Your task to perform on an android device: What's a good restaurant in Miami? Image 0: 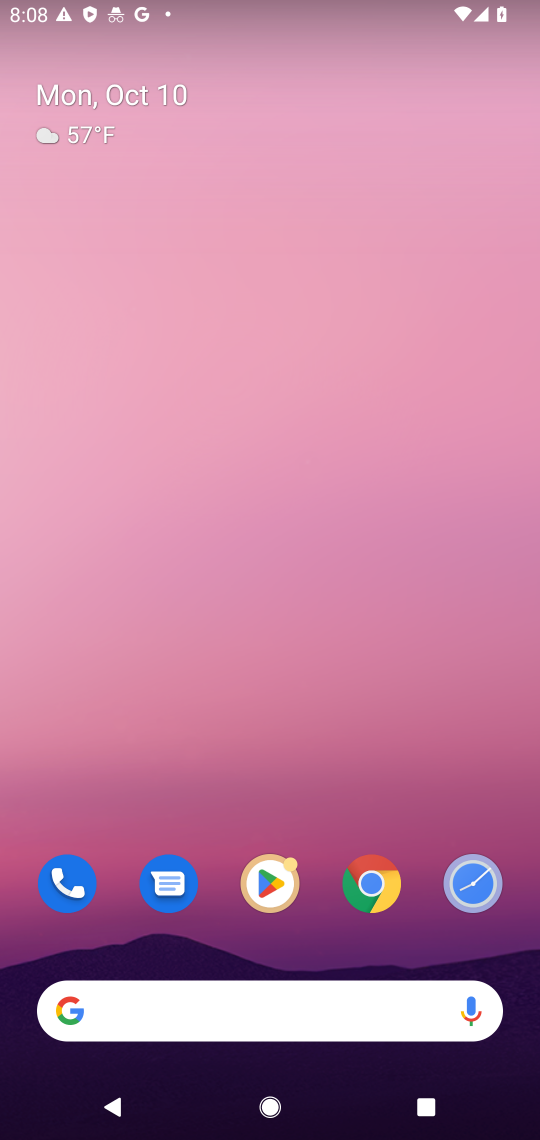
Step 0: drag from (359, 931) to (375, 0)
Your task to perform on an android device: What's a good restaurant in Miami? Image 1: 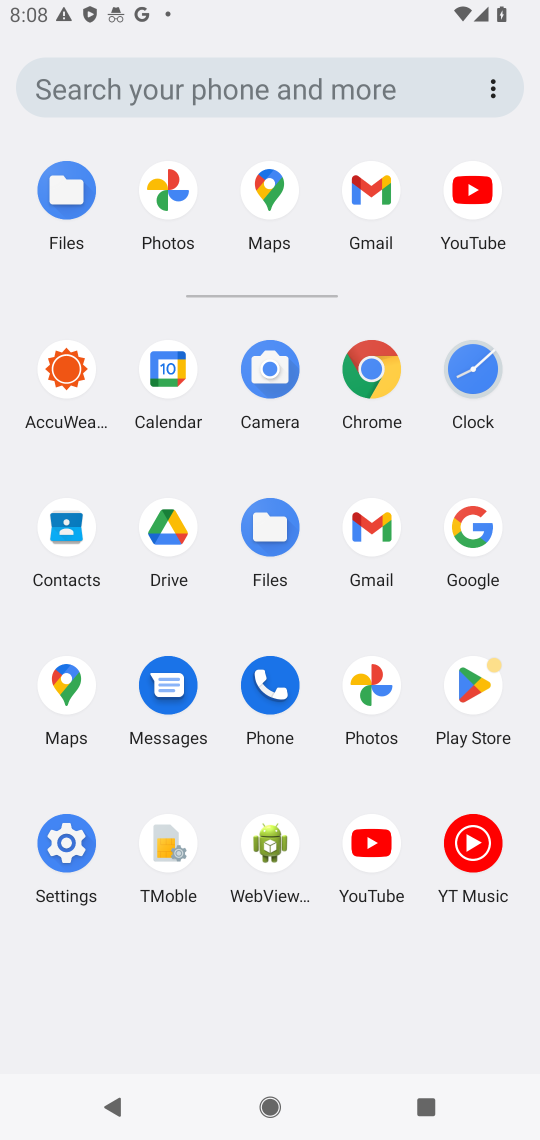
Step 1: click (478, 566)
Your task to perform on an android device: What's a good restaurant in Miami? Image 2: 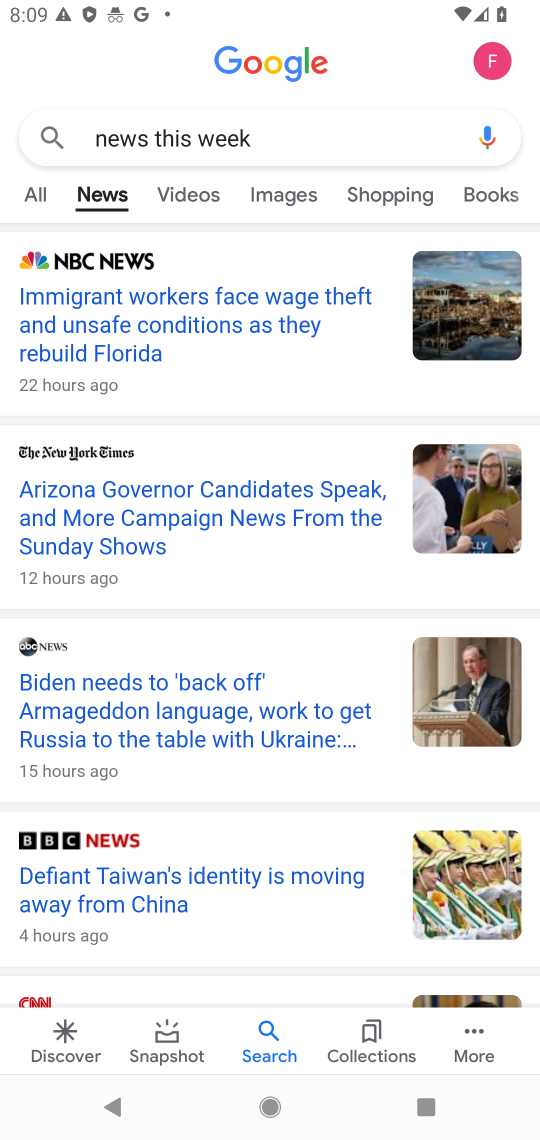
Step 2: click (389, 148)
Your task to perform on an android device: What's a good restaurant in Miami? Image 3: 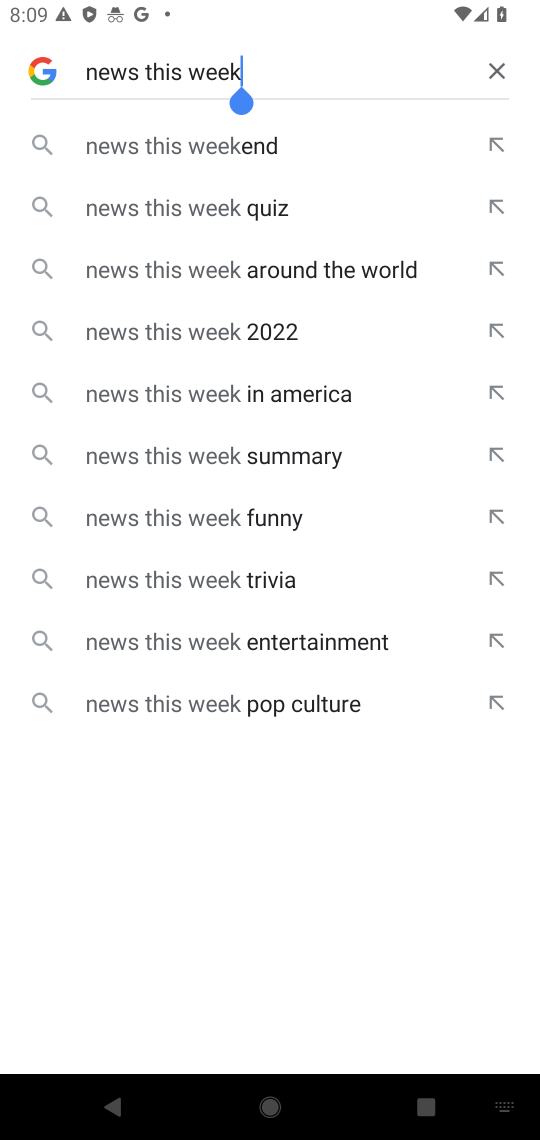
Step 3: click (499, 76)
Your task to perform on an android device: What's a good restaurant in Miami? Image 4: 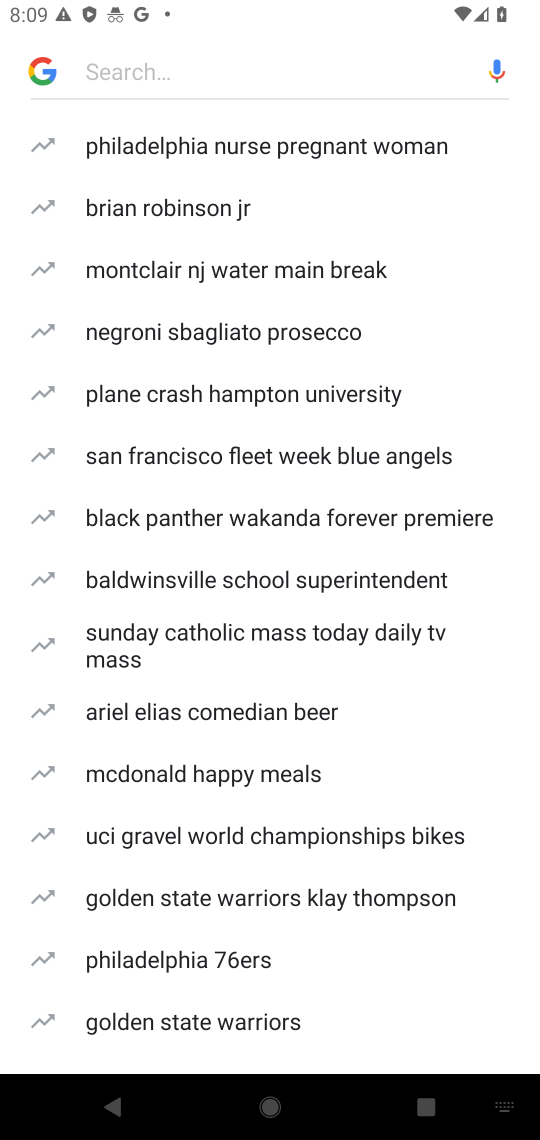
Step 4: type "good restaurant in Miami"
Your task to perform on an android device: What's a good restaurant in Miami? Image 5: 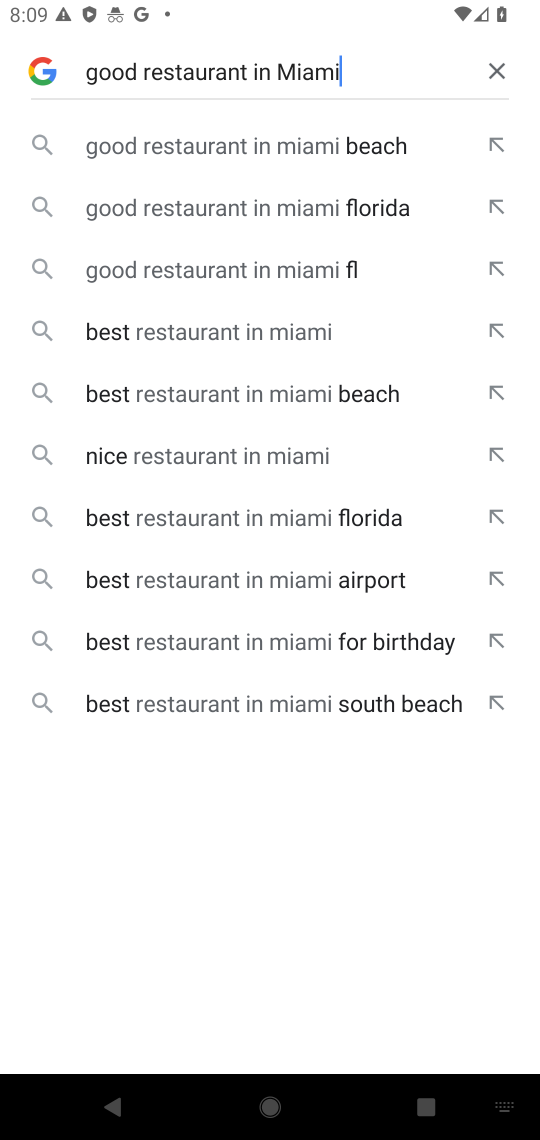
Step 5: click (339, 200)
Your task to perform on an android device: What's a good restaurant in Miami? Image 6: 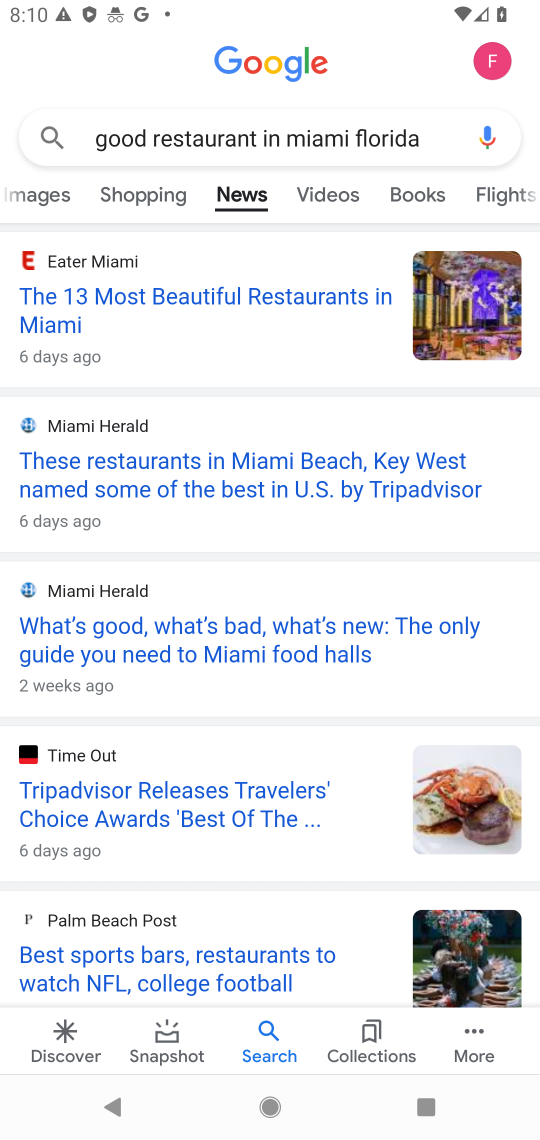
Step 6: drag from (153, 196) to (419, 189)
Your task to perform on an android device: What's a good restaurant in Miami? Image 7: 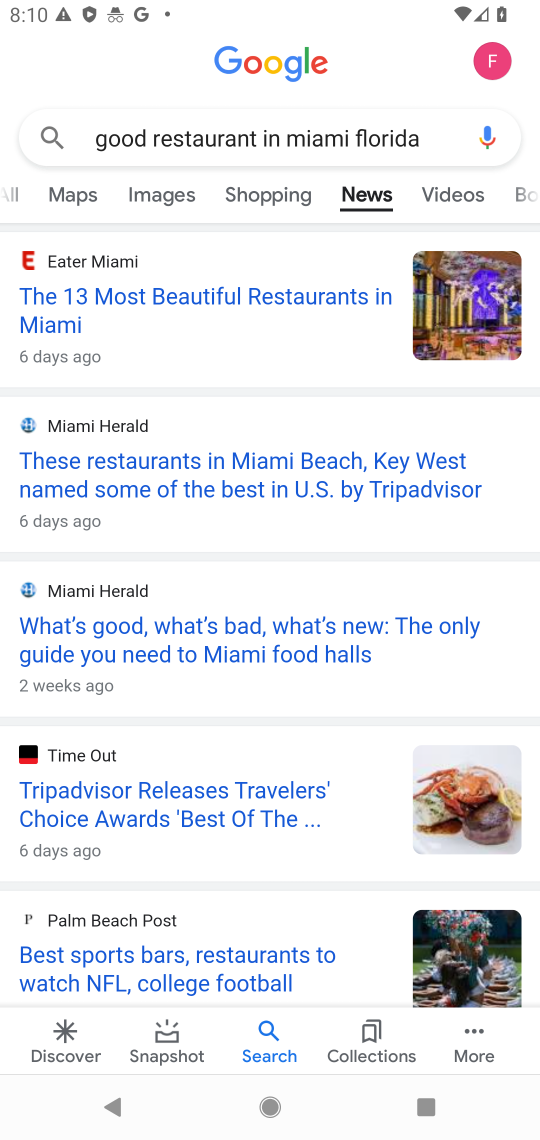
Step 7: drag from (128, 193) to (510, 225)
Your task to perform on an android device: What's a good restaurant in Miami? Image 8: 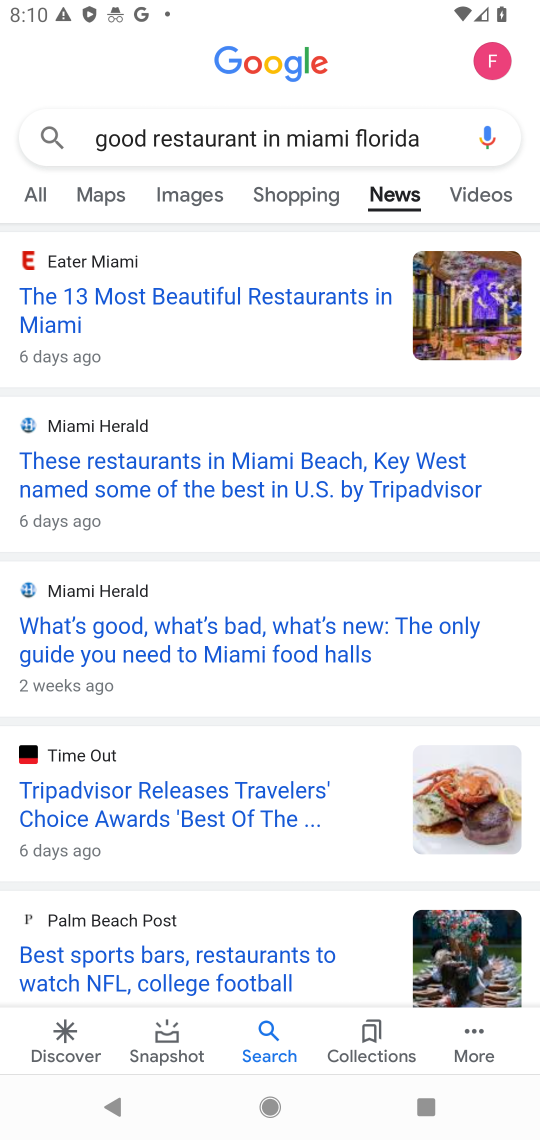
Step 8: click (50, 193)
Your task to perform on an android device: What's a good restaurant in Miami? Image 9: 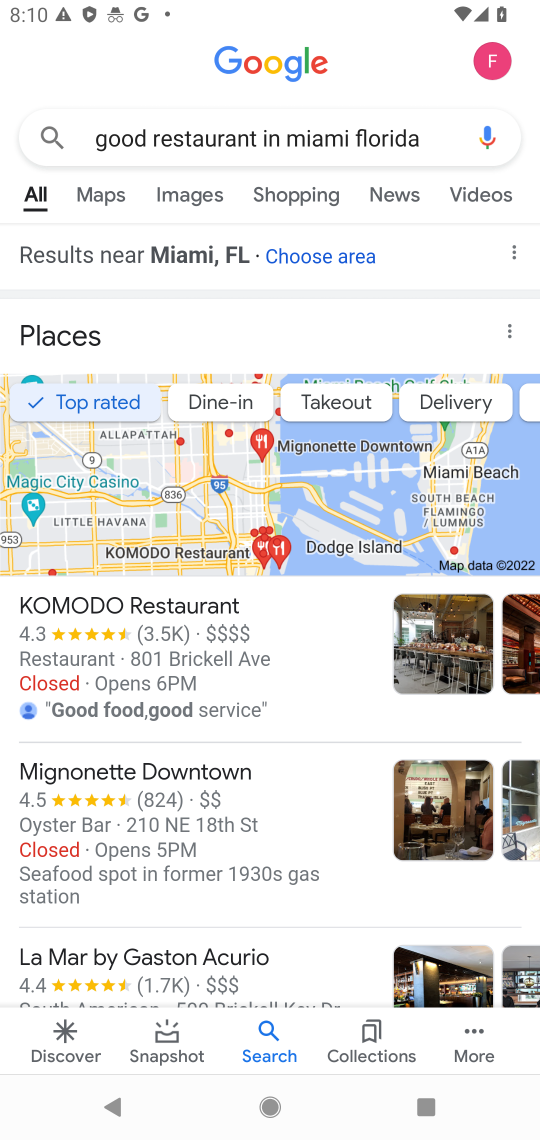
Step 9: task complete